Your task to perform on an android device: Search for vegetarian restaurants on Maps Image 0: 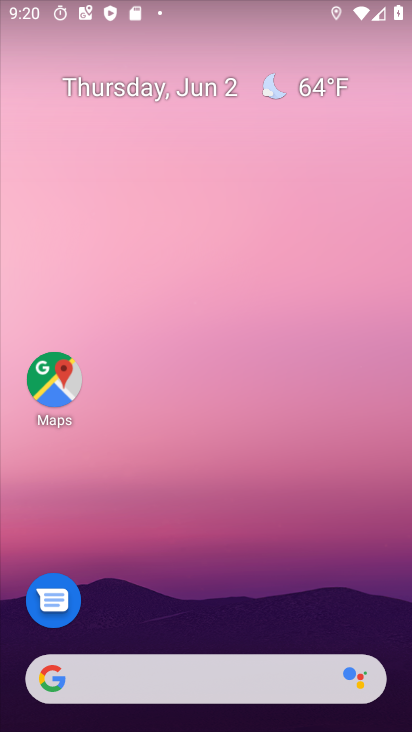
Step 0: click (70, 387)
Your task to perform on an android device: Search for vegetarian restaurants on Maps Image 1: 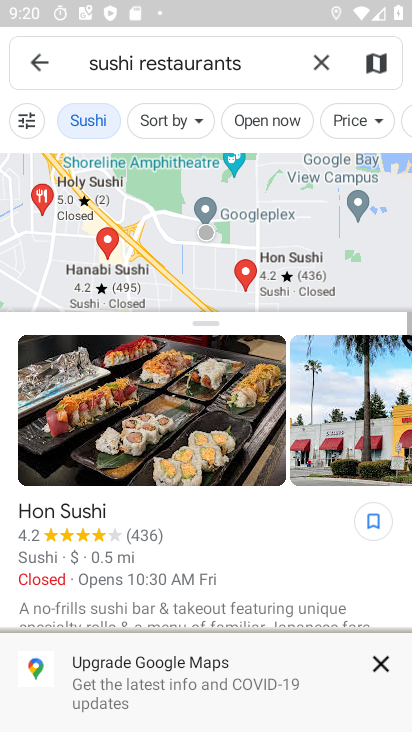
Step 1: click (316, 70)
Your task to perform on an android device: Search for vegetarian restaurants on Maps Image 2: 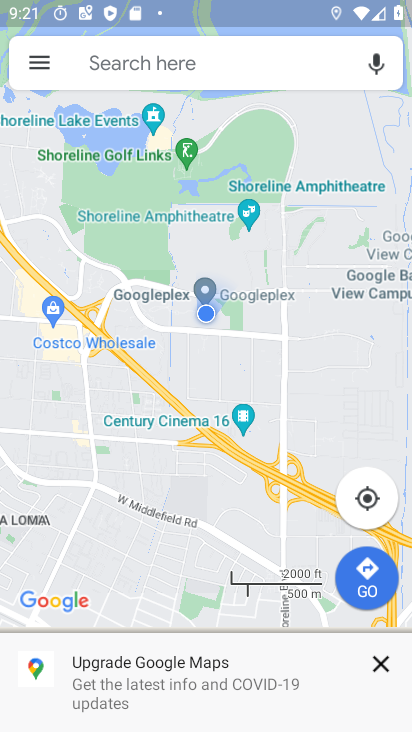
Step 2: click (185, 69)
Your task to perform on an android device: Search for vegetarian restaurants on Maps Image 3: 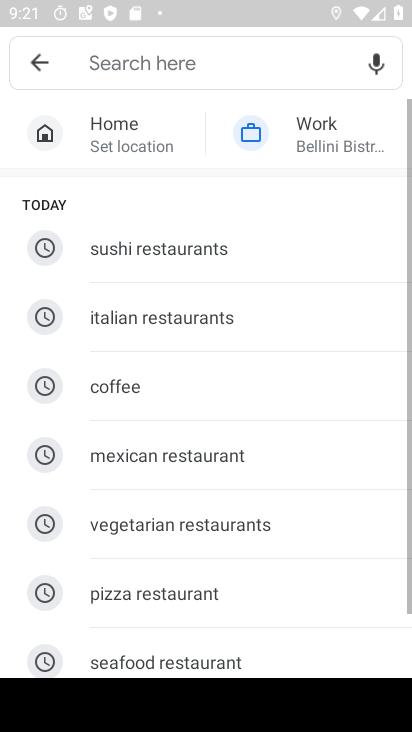
Step 3: click (181, 530)
Your task to perform on an android device: Search for vegetarian restaurants on Maps Image 4: 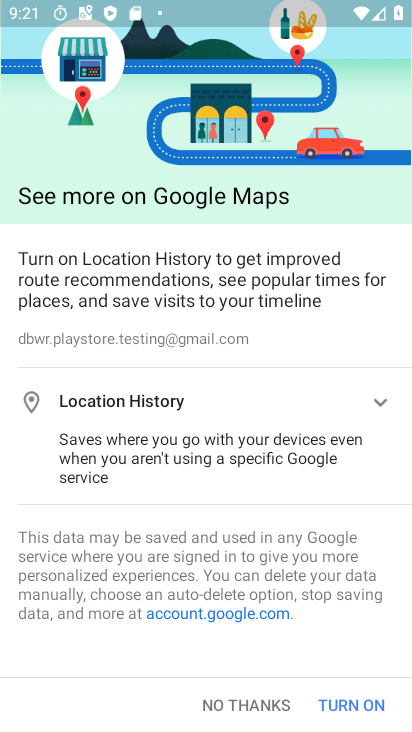
Step 4: click (243, 698)
Your task to perform on an android device: Search for vegetarian restaurants on Maps Image 5: 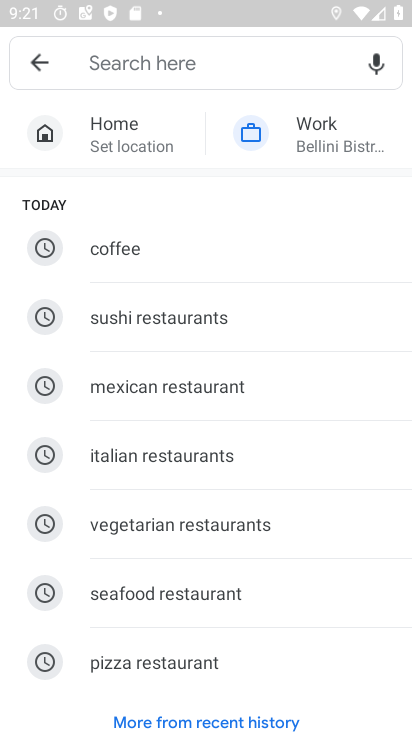
Step 5: click (168, 523)
Your task to perform on an android device: Search for vegetarian restaurants on Maps Image 6: 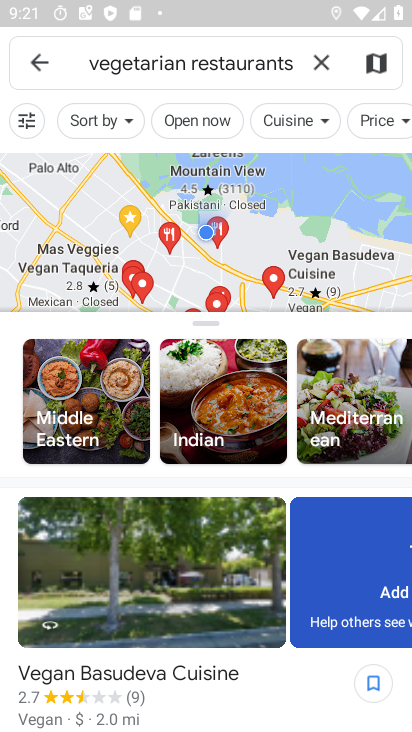
Step 6: task complete